Your task to perform on an android device: change notification settings in the gmail app Image 0: 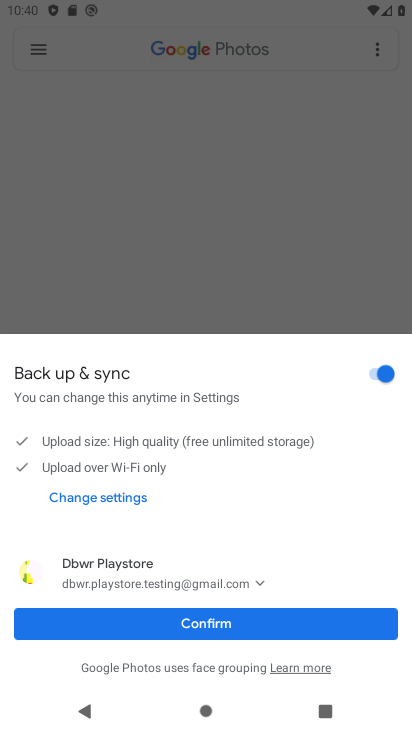
Step 0: press home button
Your task to perform on an android device: change notification settings in the gmail app Image 1: 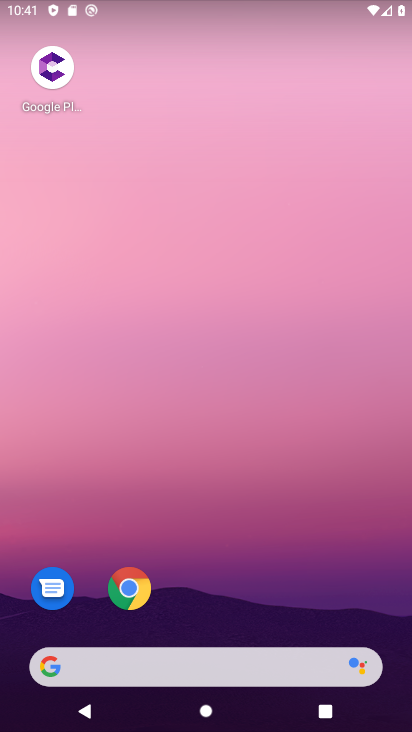
Step 1: drag from (186, 622) to (209, 50)
Your task to perform on an android device: change notification settings in the gmail app Image 2: 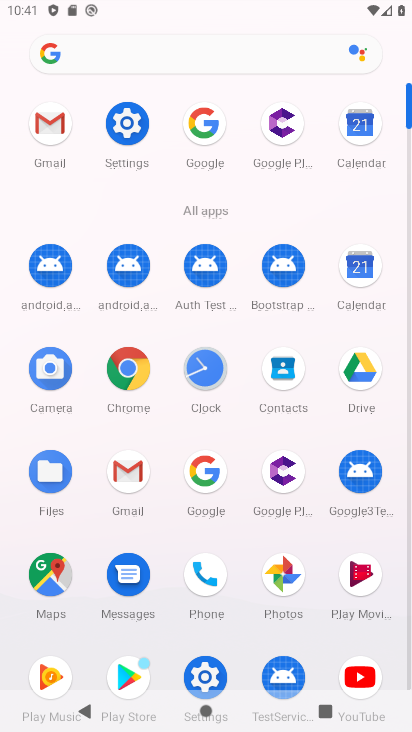
Step 2: click (135, 463)
Your task to perform on an android device: change notification settings in the gmail app Image 3: 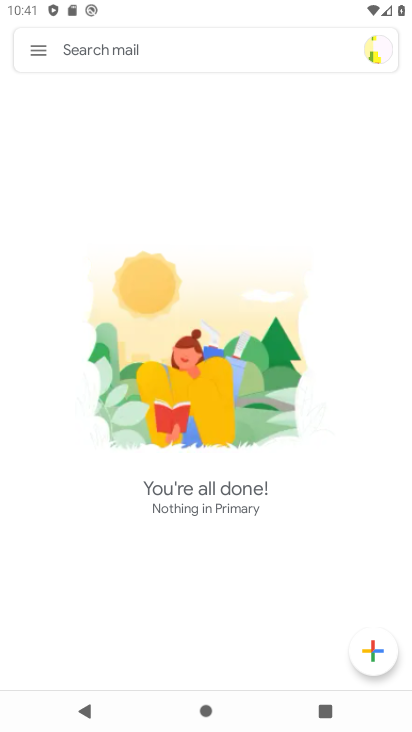
Step 3: click (44, 53)
Your task to perform on an android device: change notification settings in the gmail app Image 4: 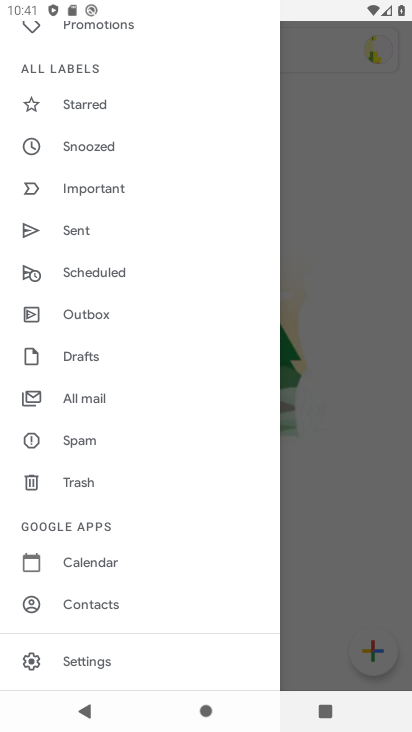
Step 4: click (106, 657)
Your task to perform on an android device: change notification settings in the gmail app Image 5: 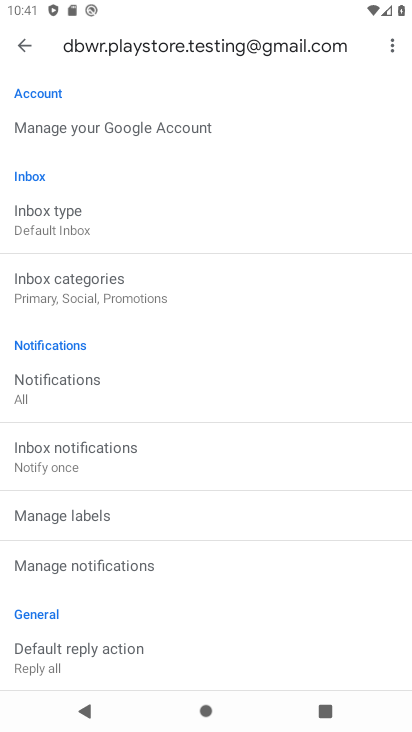
Step 5: click (164, 567)
Your task to perform on an android device: change notification settings in the gmail app Image 6: 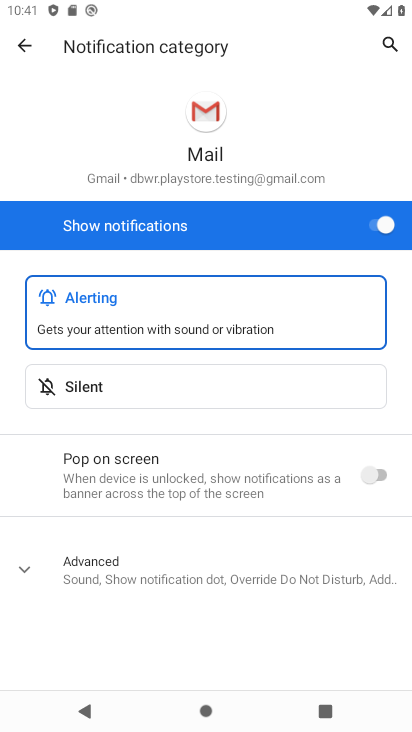
Step 6: drag from (228, 566) to (244, 229)
Your task to perform on an android device: change notification settings in the gmail app Image 7: 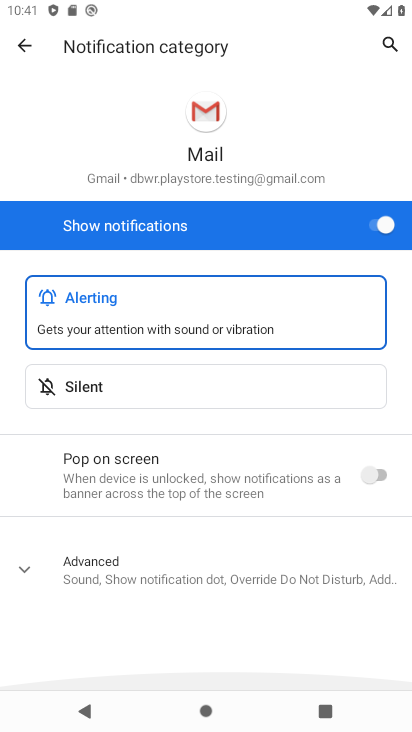
Step 7: click (152, 558)
Your task to perform on an android device: change notification settings in the gmail app Image 8: 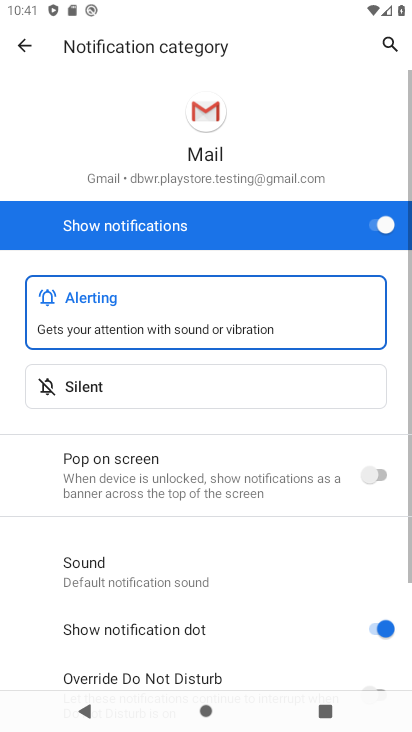
Step 8: drag from (222, 562) to (260, 314)
Your task to perform on an android device: change notification settings in the gmail app Image 9: 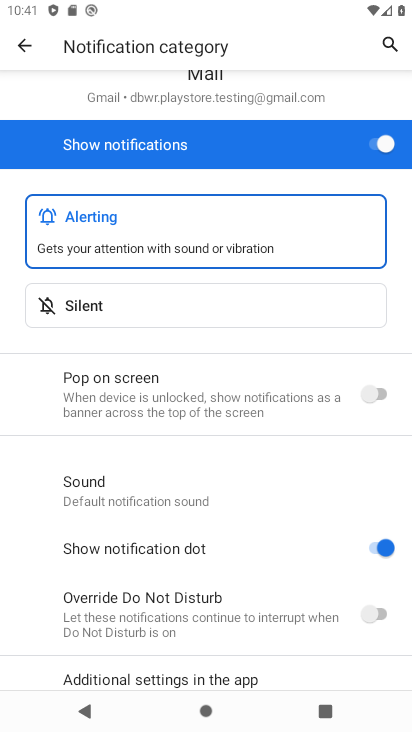
Step 9: drag from (236, 626) to (249, 323)
Your task to perform on an android device: change notification settings in the gmail app Image 10: 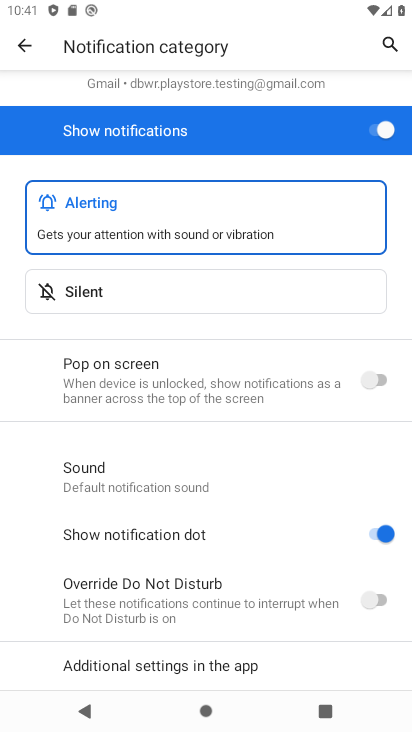
Step 10: click (370, 125)
Your task to perform on an android device: change notification settings in the gmail app Image 11: 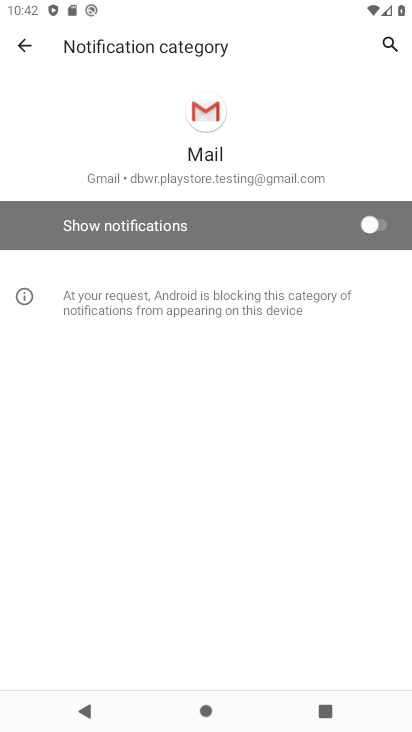
Step 11: task complete